Your task to perform on an android device: toggle improve location accuracy Image 0: 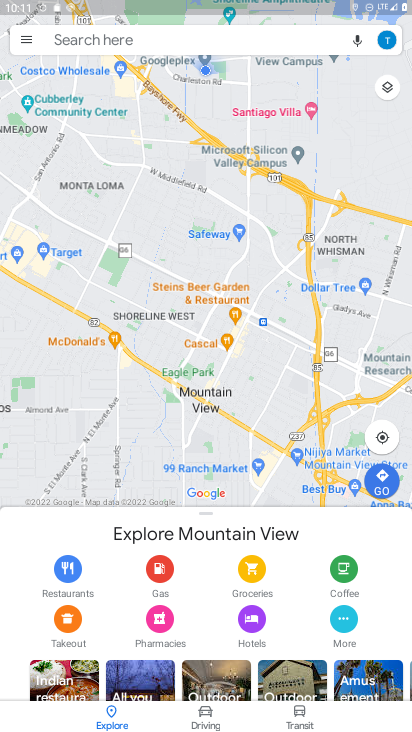
Step 0: press home button
Your task to perform on an android device: toggle improve location accuracy Image 1: 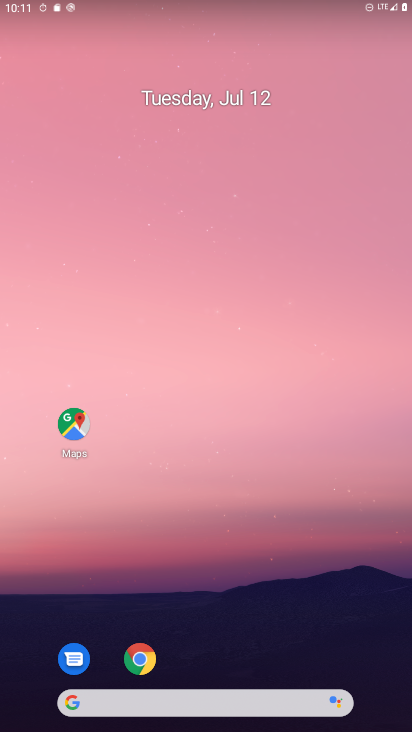
Step 1: drag from (387, 699) to (292, 132)
Your task to perform on an android device: toggle improve location accuracy Image 2: 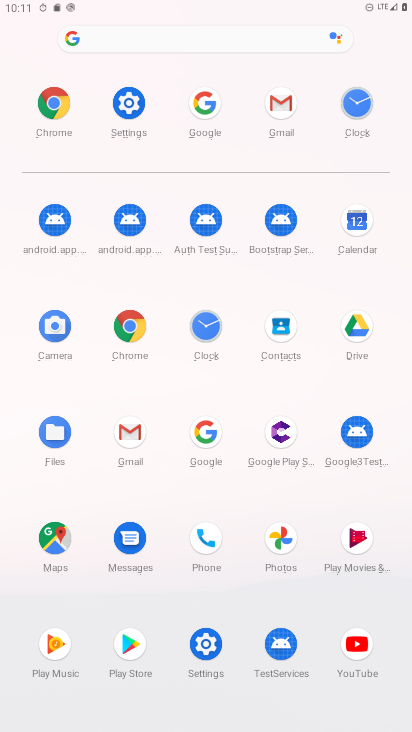
Step 2: click (205, 655)
Your task to perform on an android device: toggle improve location accuracy Image 3: 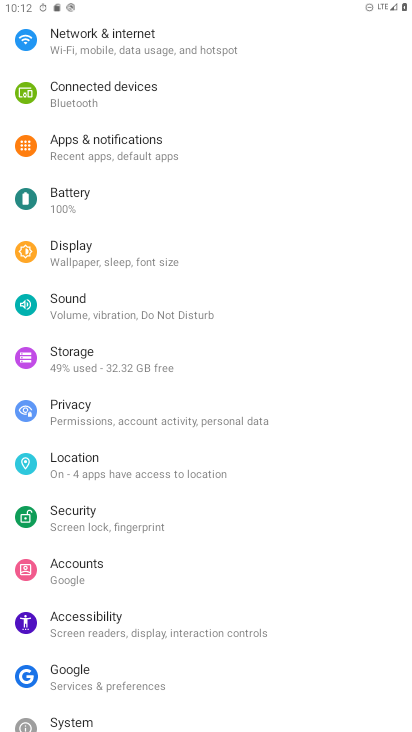
Step 3: click (109, 454)
Your task to perform on an android device: toggle improve location accuracy Image 4: 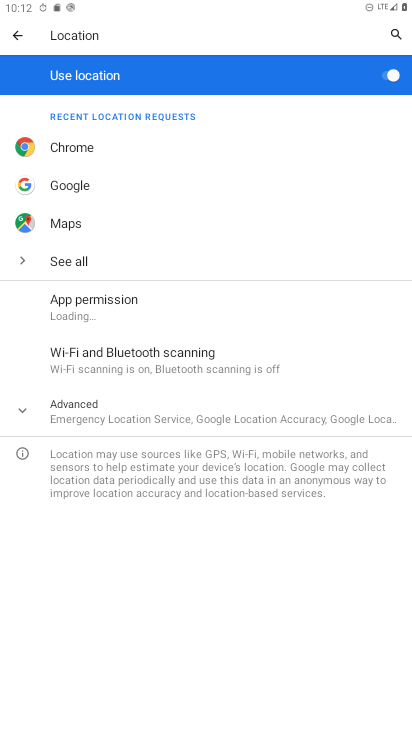
Step 4: click (135, 410)
Your task to perform on an android device: toggle improve location accuracy Image 5: 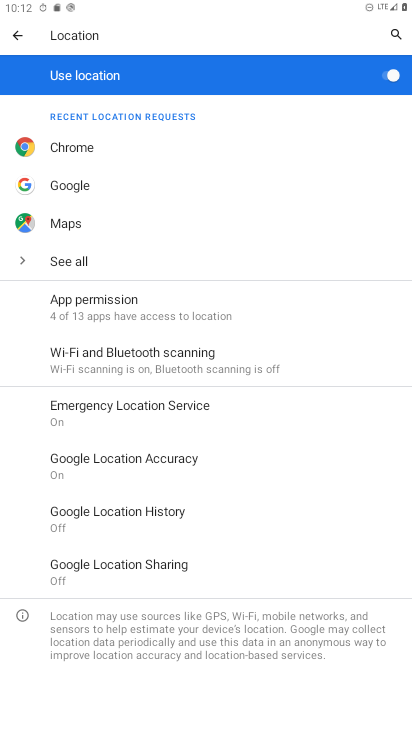
Step 5: click (136, 461)
Your task to perform on an android device: toggle improve location accuracy Image 6: 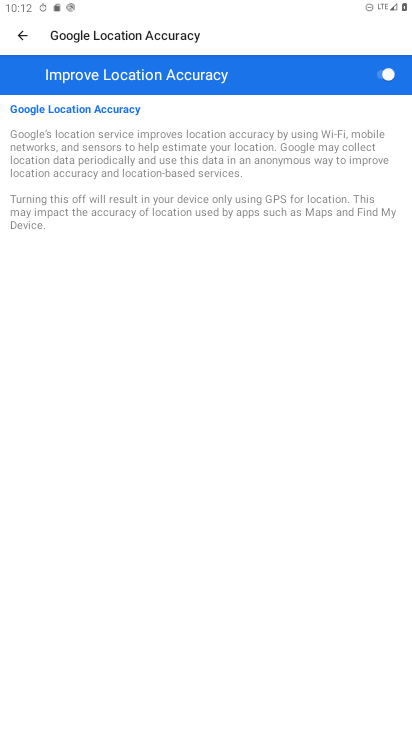
Step 6: click (374, 87)
Your task to perform on an android device: toggle improve location accuracy Image 7: 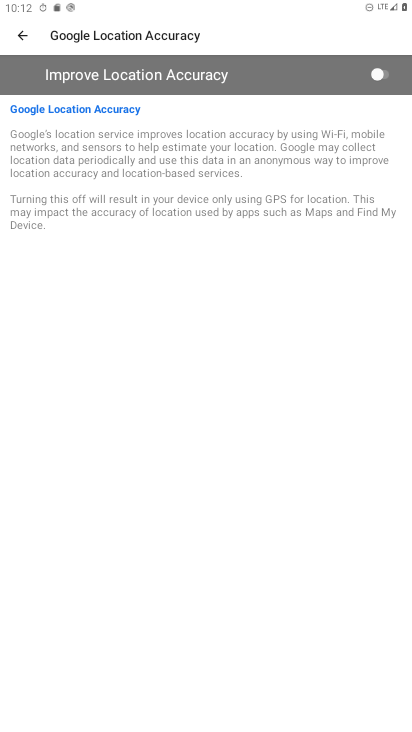
Step 7: task complete